Your task to perform on an android device: manage bookmarks in the chrome app Image 0: 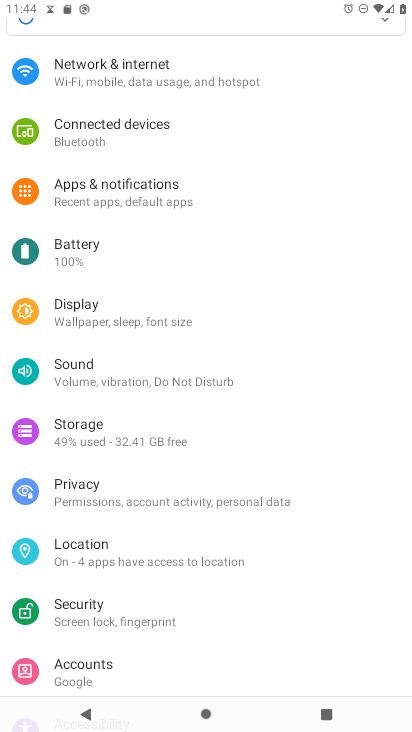
Step 0: press home button
Your task to perform on an android device: manage bookmarks in the chrome app Image 1: 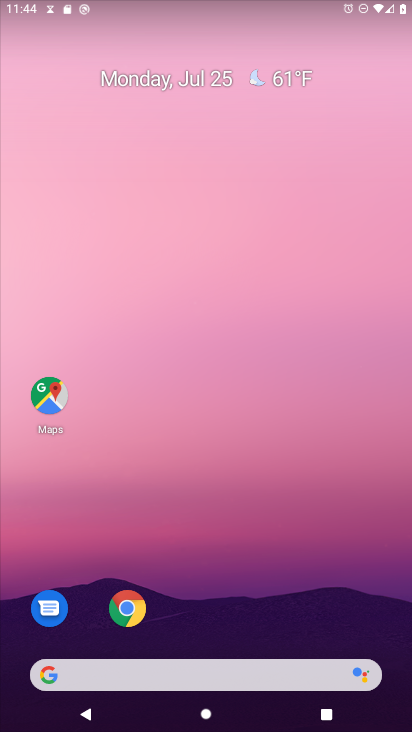
Step 1: click (128, 609)
Your task to perform on an android device: manage bookmarks in the chrome app Image 2: 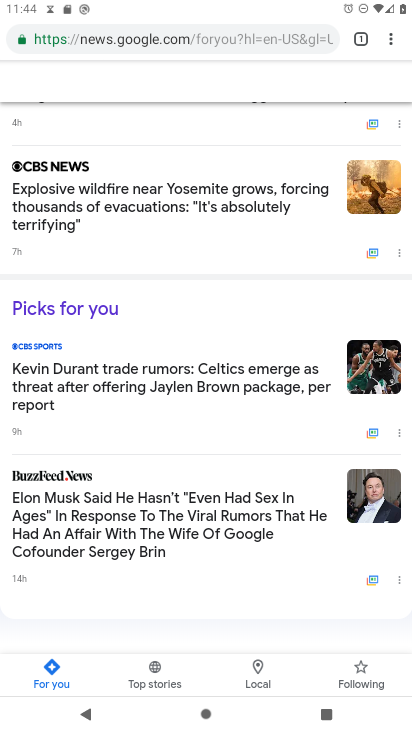
Step 2: click (390, 40)
Your task to perform on an android device: manage bookmarks in the chrome app Image 3: 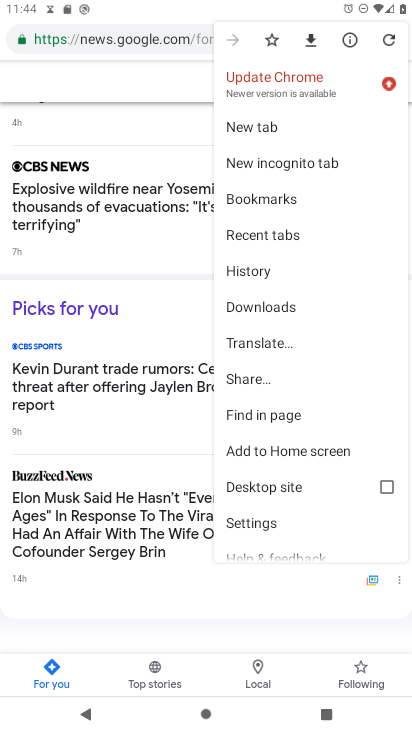
Step 3: click (280, 196)
Your task to perform on an android device: manage bookmarks in the chrome app Image 4: 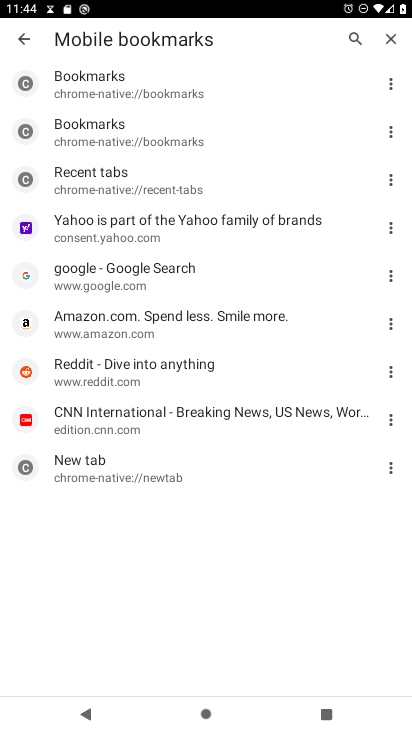
Step 4: click (389, 124)
Your task to perform on an android device: manage bookmarks in the chrome app Image 5: 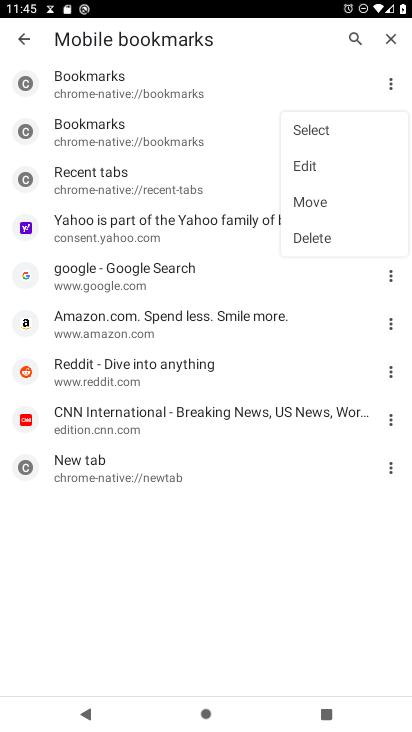
Step 5: click (316, 168)
Your task to perform on an android device: manage bookmarks in the chrome app Image 6: 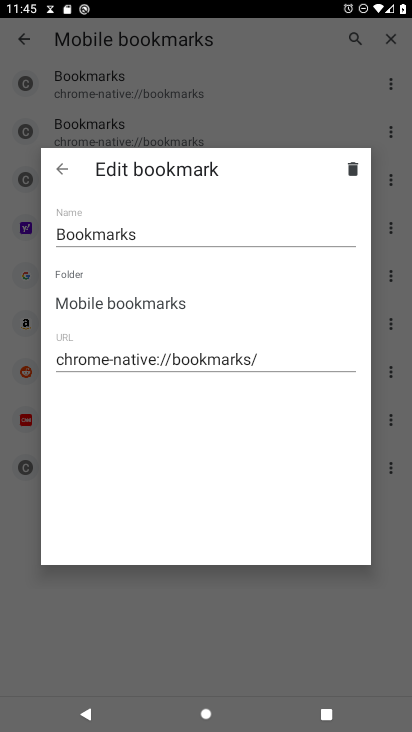
Step 6: click (355, 162)
Your task to perform on an android device: manage bookmarks in the chrome app Image 7: 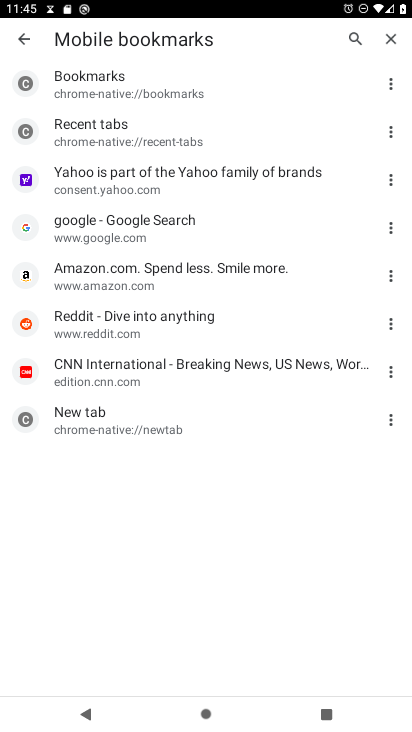
Step 7: task complete